Your task to perform on an android device: toggle translation in the chrome app Image 0: 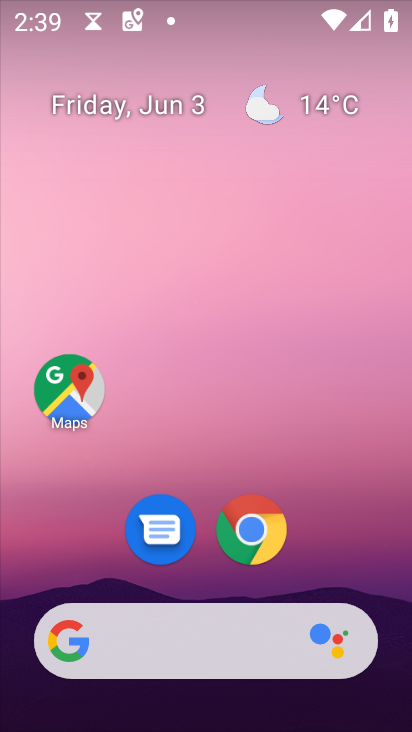
Step 0: click (211, 58)
Your task to perform on an android device: toggle translation in the chrome app Image 1: 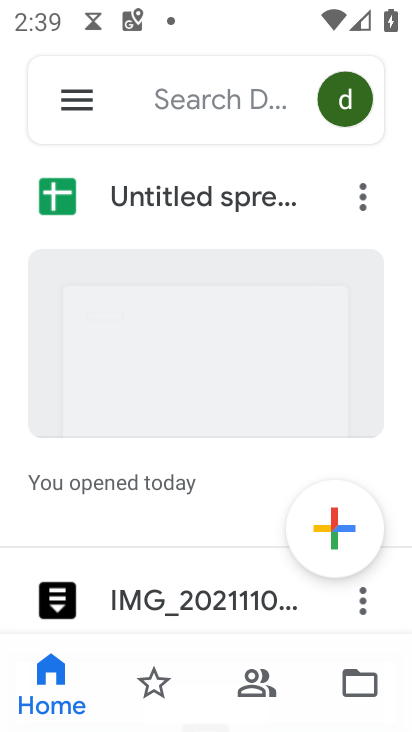
Step 1: press back button
Your task to perform on an android device: toggle translation in the chrome app Image 2: 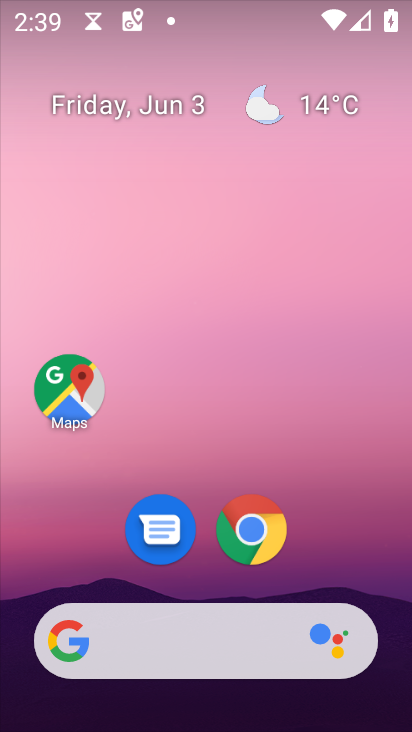
Step 2: drag from (177, 697) to (194, 110)
Your task to perform on an android device: toggle translation in the chrome app Image 3: 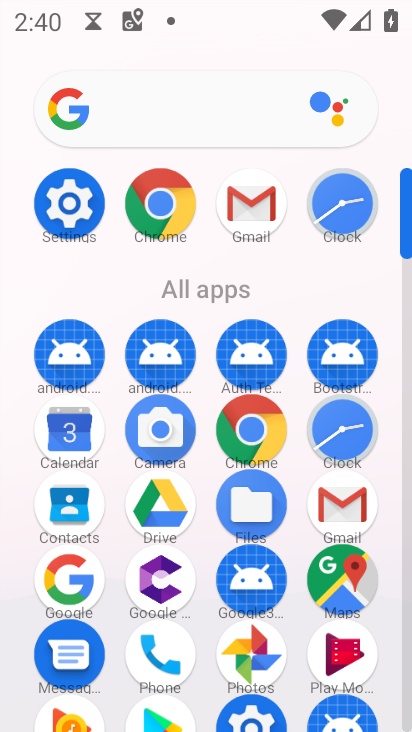
Step 3: click (248, 448)
Your task to perform on an android device: toggle translation in the chrome app Image 4: 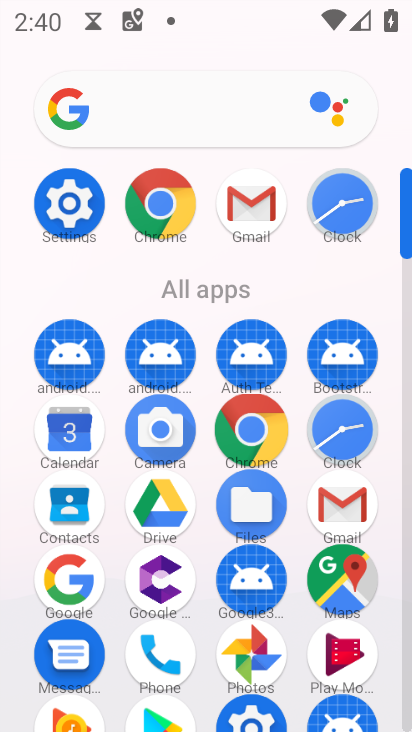
Step 4: click (248, 449)
Your task to perform on an android device: toggle translation in the chrome app Image 5: 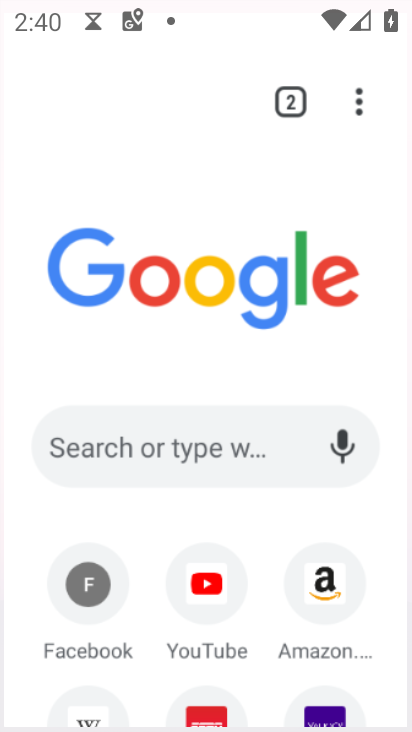
Step 5: click (248, 449)
Your task to perform on an android device: toggle translation in the chrome app Image 6: 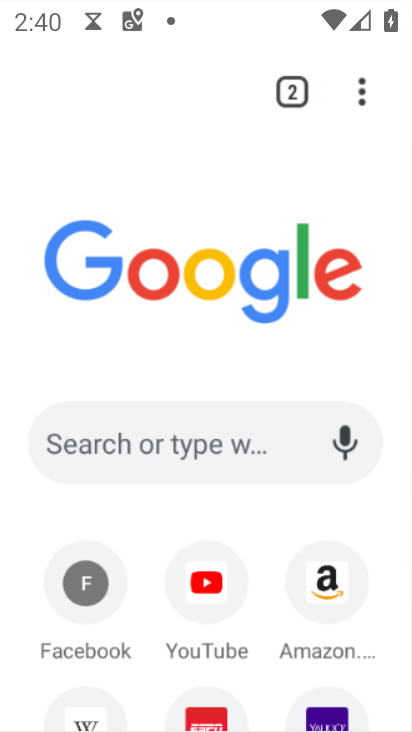
Step 6: click (248, 449)
Your task to perform on an android device: toggle translation in the chrome app Image 7: 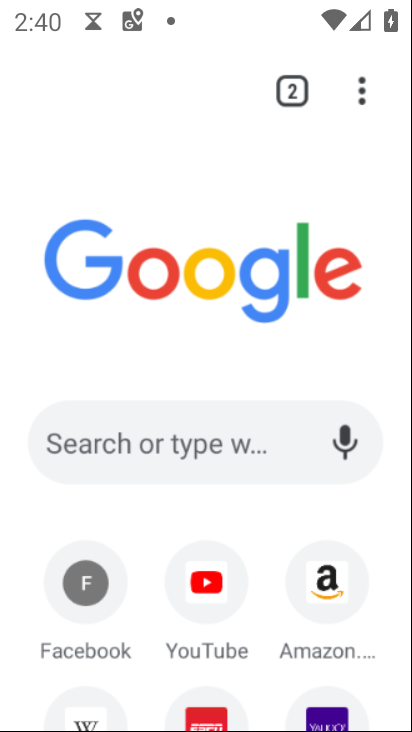
Step 7: click (247, 448)
Your task to perform on an android device: toggle translation in the chrome app Image 8: 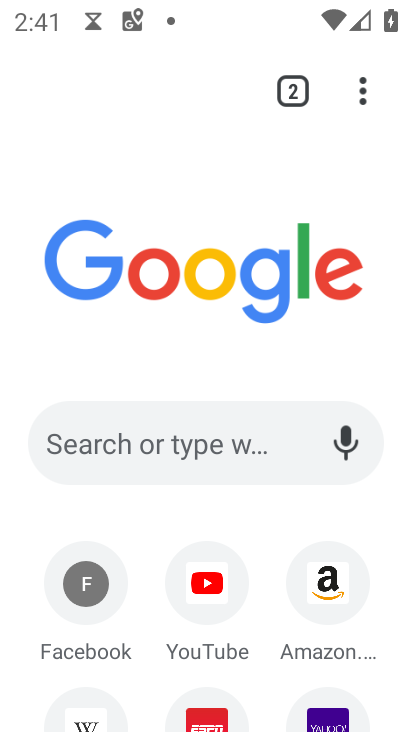
Step 8: drag from (360, 100) to (79, 548)
Your task to perform on an android device: toggle translation in the chrome app Image 9: 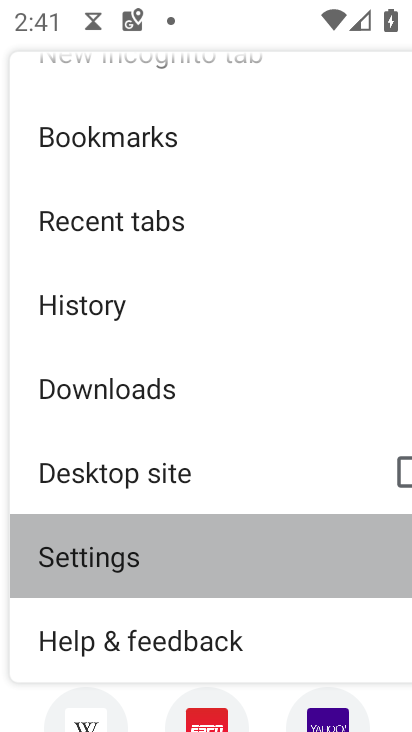
Step 9: click (74, 549)
Your task to perform on an android device: toggle translation in the chrome app Image 10: 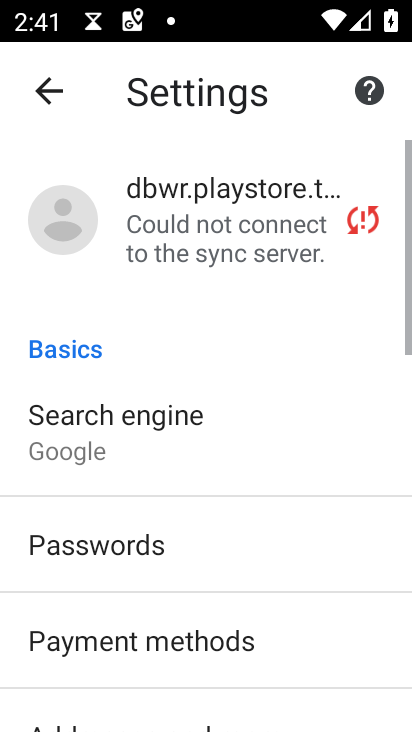
Step 10: drag from (206, 532) to (160, 194)
Your task to perform on an android device: toggle translation in the chrome app Image 11: 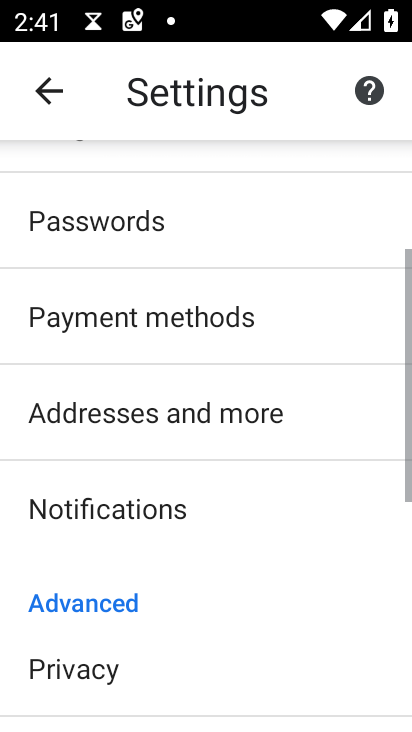
Step 11: drag from (126, 606) to (141, 159)
Your task to perform on an android device: toggle translation in the chrome app Image 12: 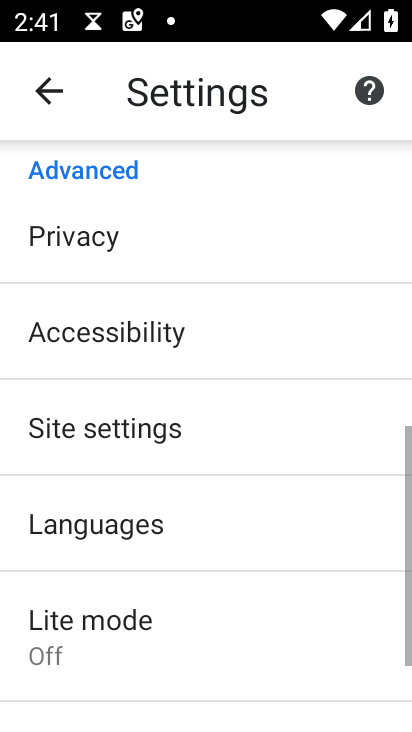
Step 12: drag from (195, 403) to (184, 265)
Your task to perform on an android device: toggle translation in the chrome app Image 13: 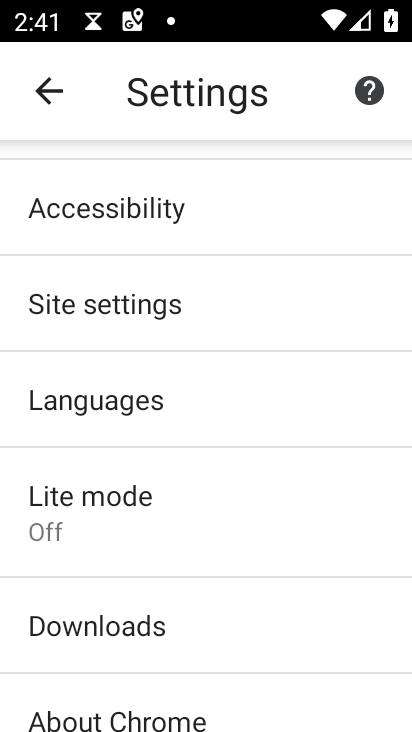
Step 13: click (96, 417)
Your task to perform on an android device: toggle translation in the chrome app Image 14: 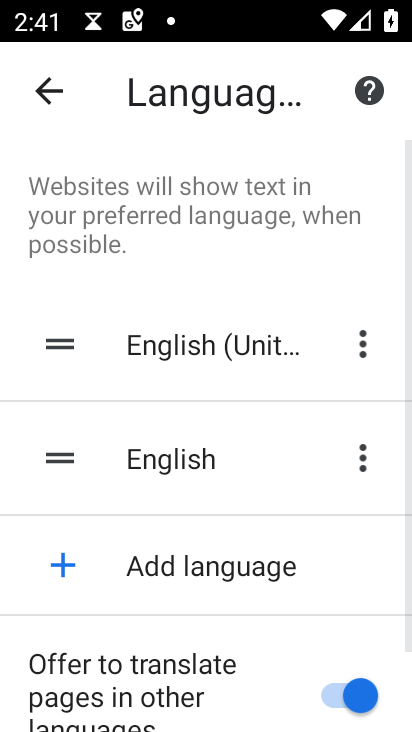
Step 14: drag from (276, 681) to (250, 255)
Your task to perform on an android device: toggle translation in the chrome app Image 15: 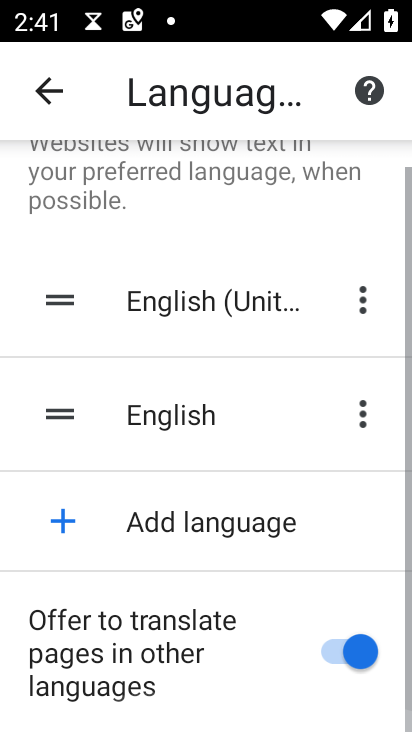
Step 15: drag from (246, 506) to (218, 197)
Your task to perform on an android device: toggle translation in the chrome app Image 16: 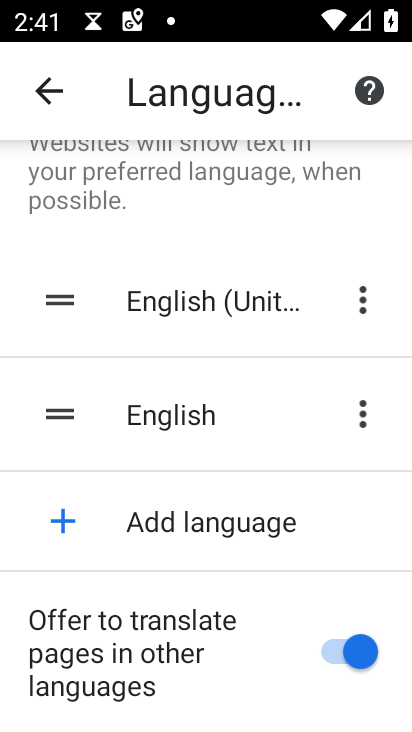
Step 16: click (352, 642)
Your task to perform on an android device: toggle translation in the chrome app Image 17: 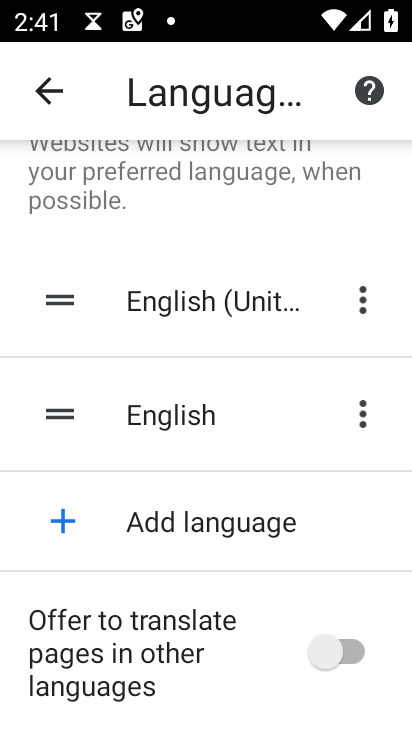
Step 17: task complete